Your task to perform on an android device: turn off improve location accuracy Image 0: 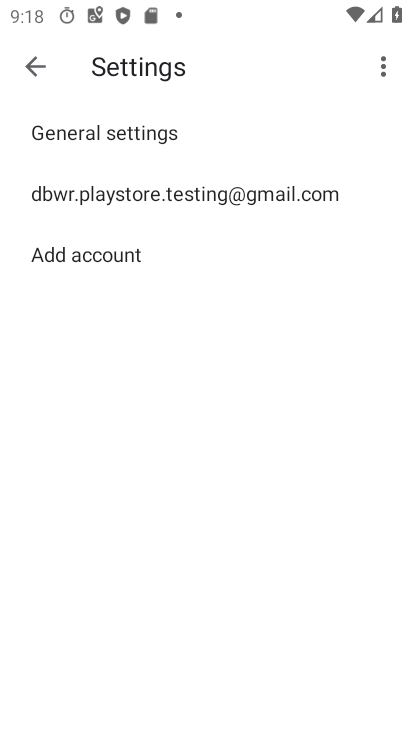
Step 0: click (272, 107)
Your task to perform on an android device: turn off improve location accuracy Image 1: 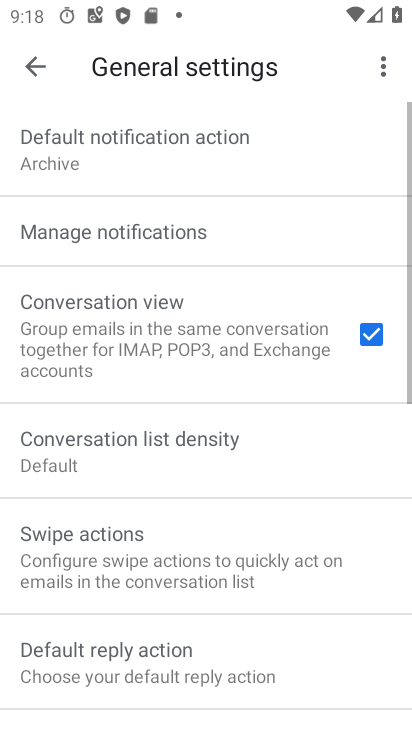
Step 1: press home button
Your task to perform on an android device: turn off improve location accuracy Image 2: 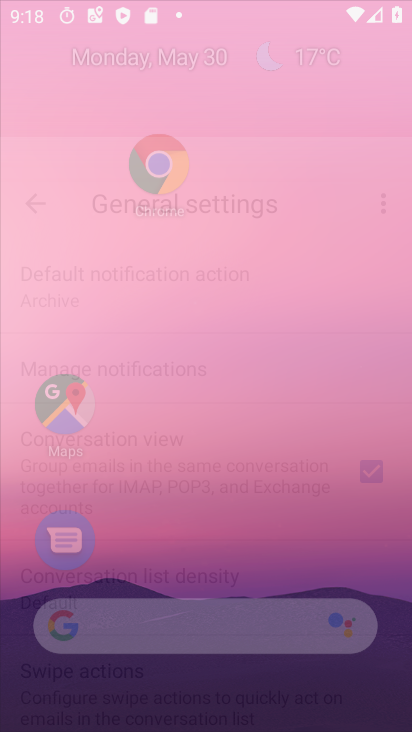
Step 2: drag from (190, 654) to (305, 68)
Your task to perform on an android device: turn off improve location accuracy Image 3: 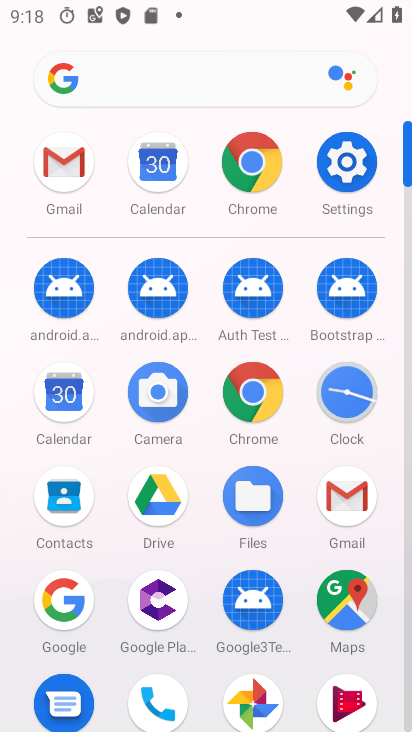
Step 3: click (350, 170)
Your task to perform on an android device: turn off improve location accuracy Image 4: 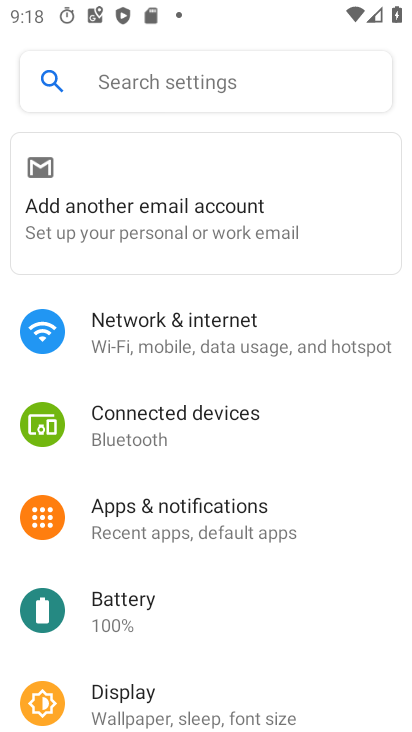
Step 4: drag from (331, 19) to (41, 402)
Your task to perform on an android device: turn off improve location accuracy Image 5: 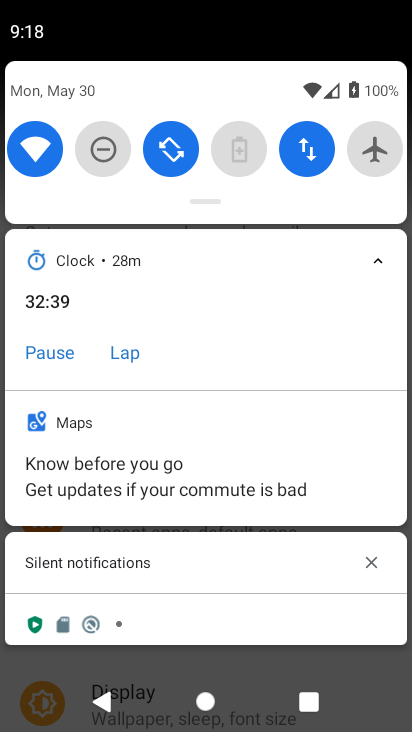
Step 5: drag from (248, 643) to (261, 157)
Your task to perform on an android device: turn off improve location accuracy Image 6: 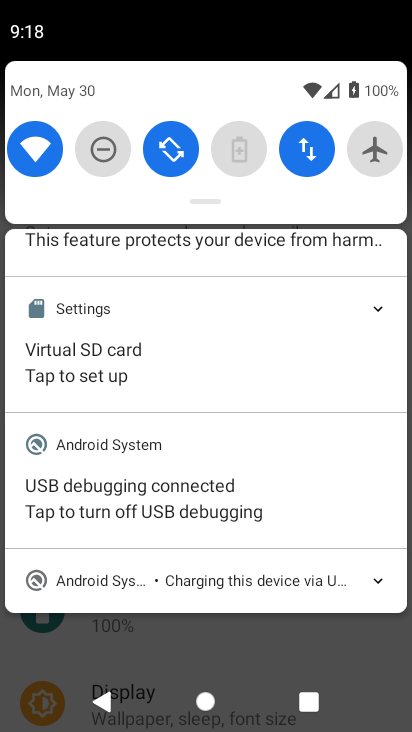
Step 6: press home button
Your task to perform on an android device: turn off improve location accuracy Image 7: 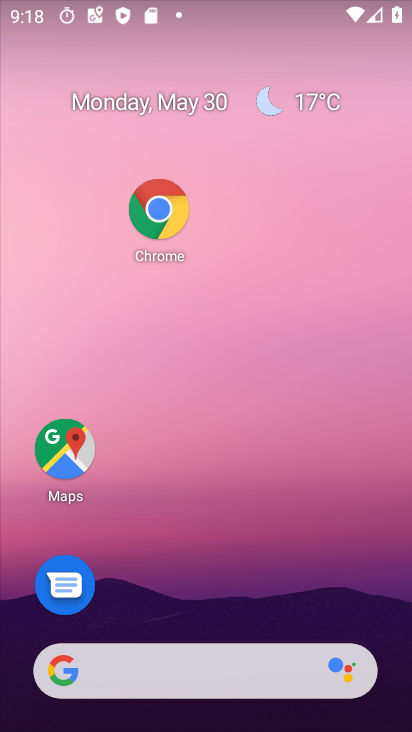
Step 7: drag from (196, 611) to (333, 150)
Your task to perform on an android device: turn off improve location accuracy Image 8: 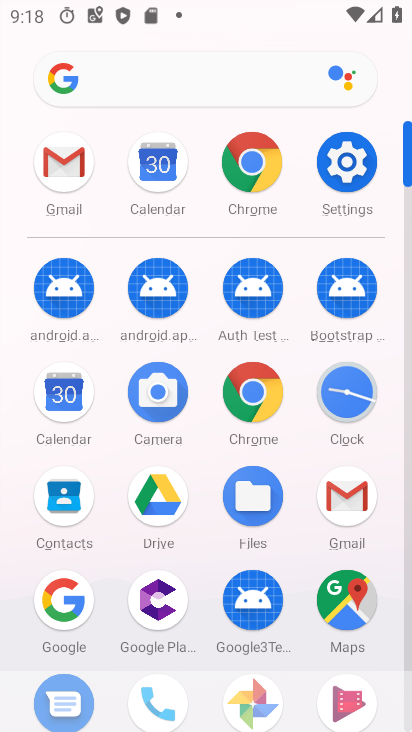
Step 8: click (343, 161)
Your task to perform on an android device: turn off improve location accuracy Image 9: 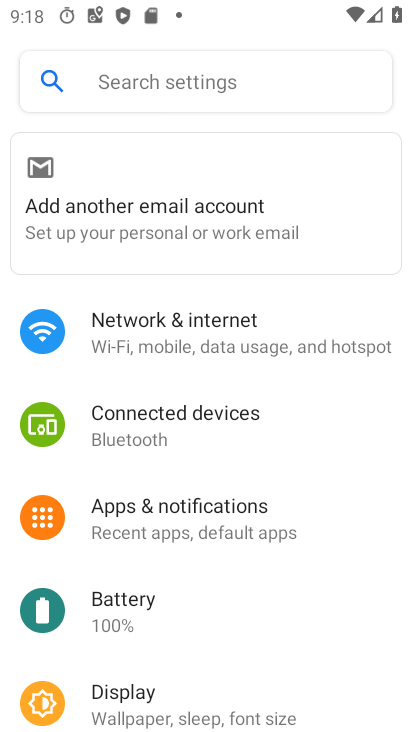
Step 9: drag from (279, 238) to (303, 139)
Your task to perform on an android device: turn off improve location accuracy Image 10: 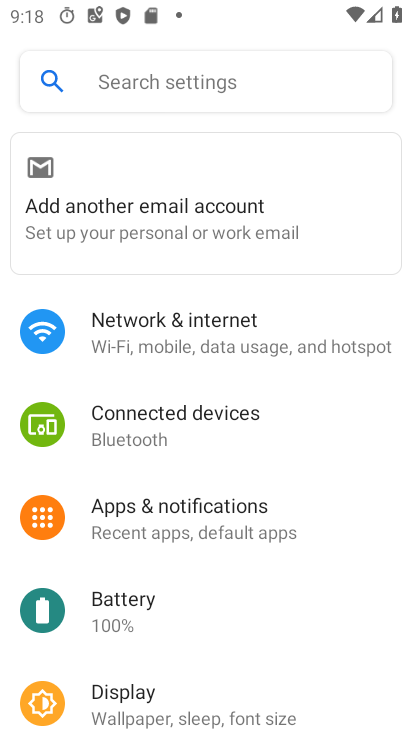
Step 10: drag from (351, 225) to (376, 123)
Your task to perform on an android device: turn off improve location accuracy Image 11: 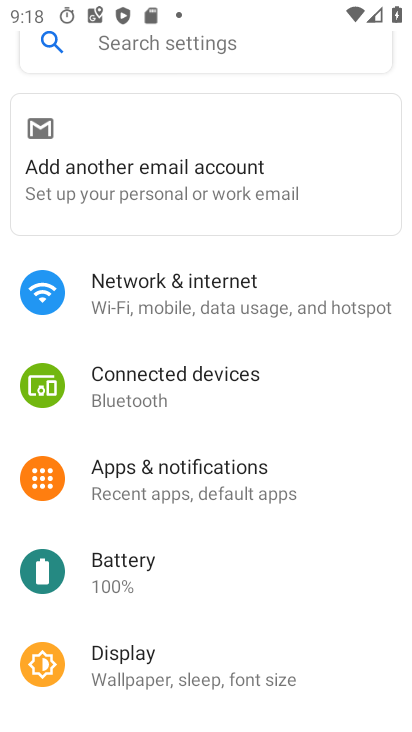
Step 11: drag from (230, 449) to (293, 153)
Your task to perform on an android device: turn off improve location accuracy Image 12: 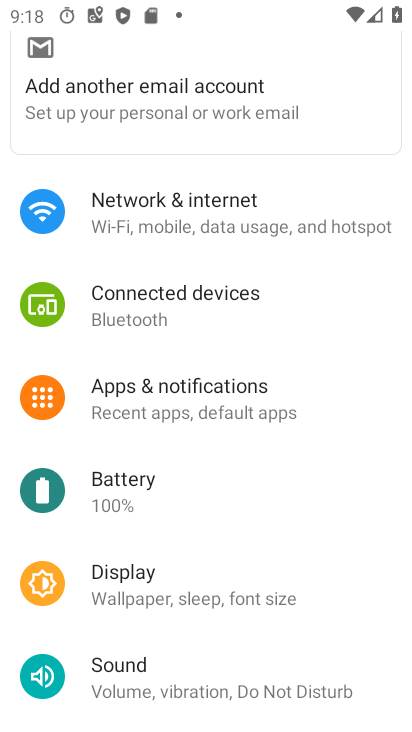
Step 12: drag from (199, 622) to (342, 182)
Your task to perform on an android device: turn off improve location accuracy Image 13: 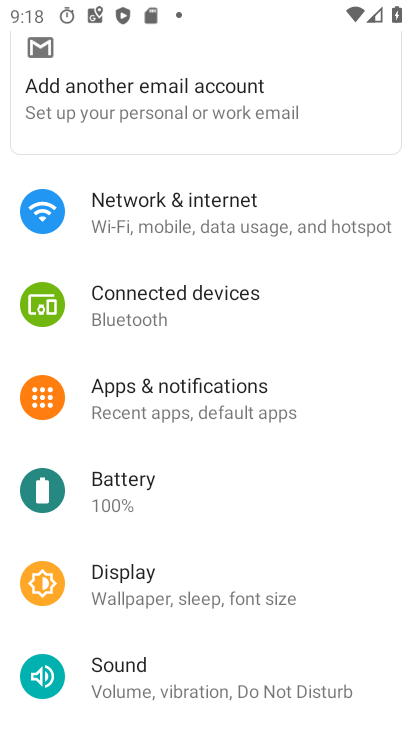
Step 13: drag from (237, 441) to (266, 234)
Your task to perform on an android device: turn off improve location accuracy Image 14: 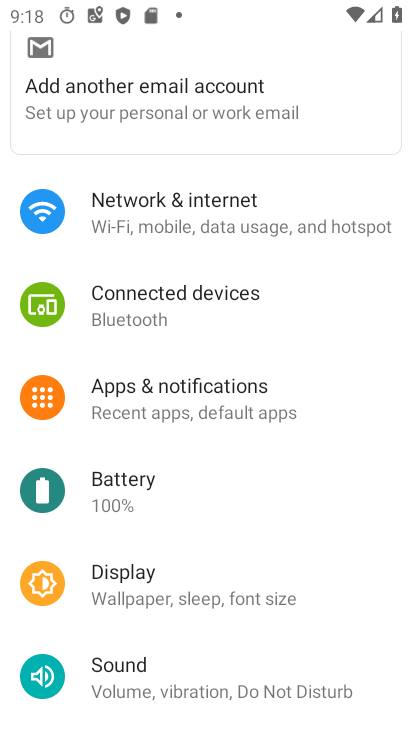
Step 14: drag from (394, 217) to (387, 717)
Your task to perform on an android device: turn off improve location accuracy Image 15: 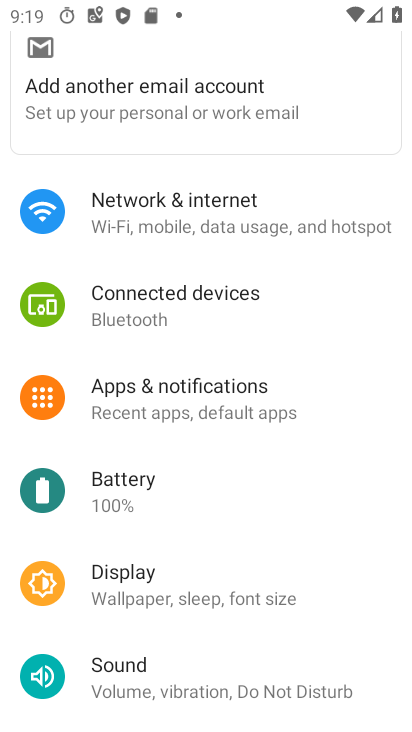
Step 15: drag from (304, 486) to (103, 0)
Your task to perform on an android device: turn off improve location accuracy Image 16: 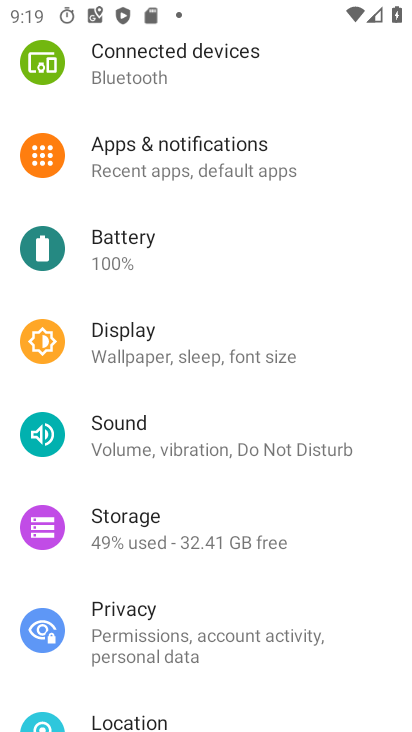
Step 16: click (174, 703)
Your task to perform on an android device: turn off improve location accuracy Image 17: 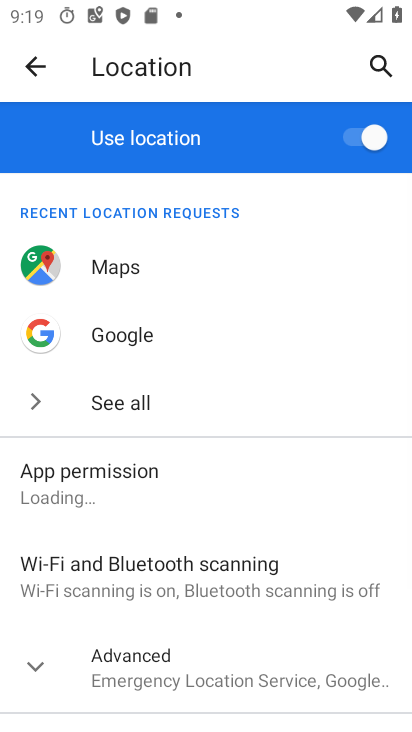
Step 17: click (281, 198)
Your task to perform on an android device: turn off improve location accuracy Image 18: 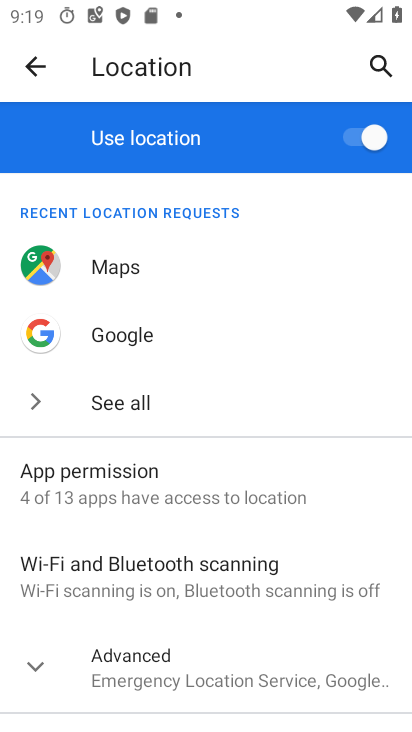
Step 18: click (145, 672)
Your task to perform on an android device: turn off improve location accuracy Image 19: 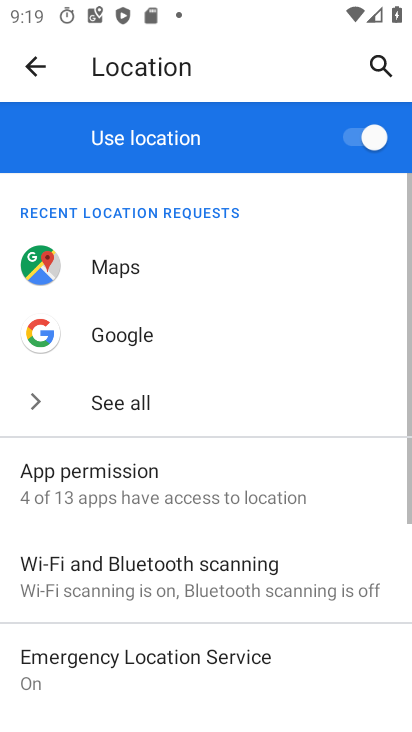
Step 19: drag from (225, 568) to (340, 241)
Your task to perform on an android device: turn off improve location accuracy Image 20: 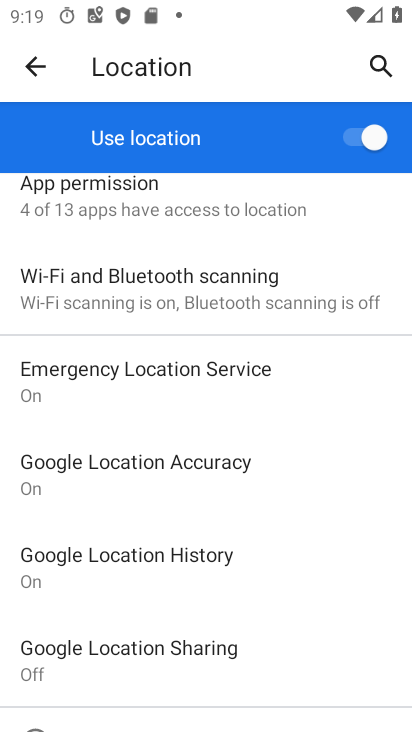
Step 20: click (195, 499)
Your task to perform on an android device: turn off improve location accuracy Image 21: 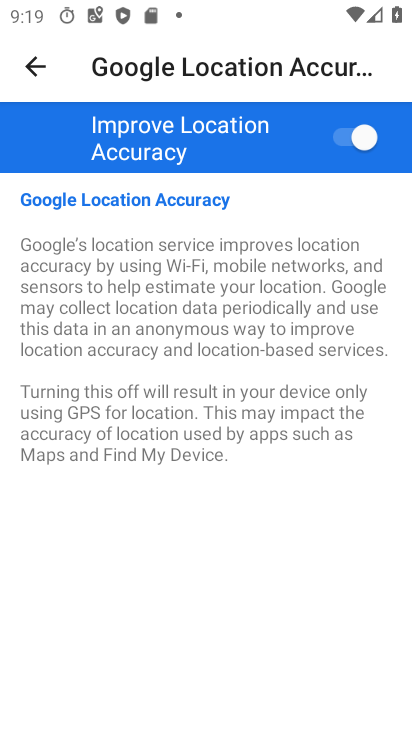
Step 21: click (333, 142)
Your task to perform on an android device: turn off improve location accuracy Image 22: 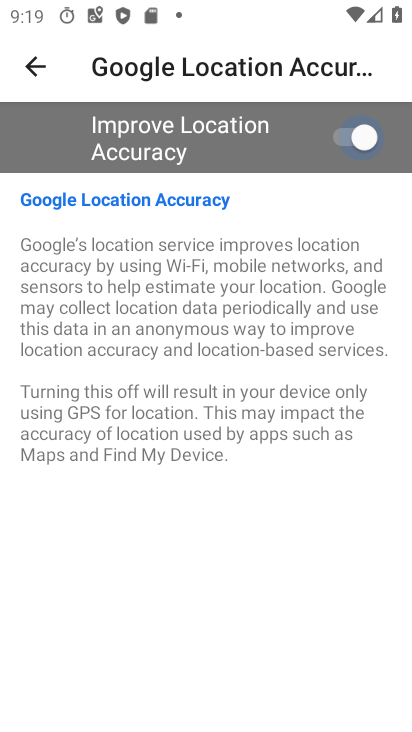
Step 22: task complete